Your task to perform on an android device: Go to Yahoo.com Image 0: 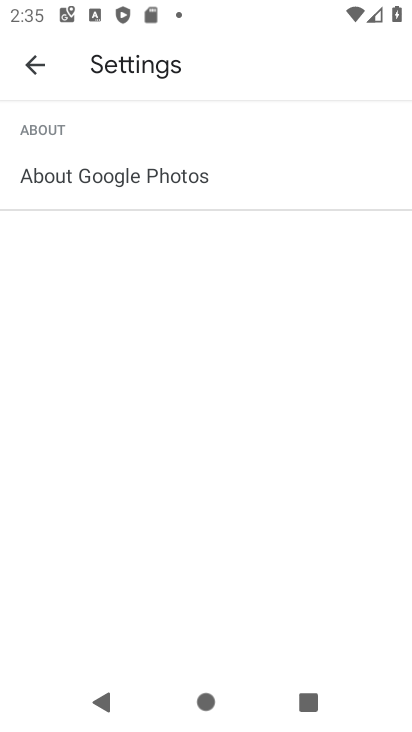
Step 0: press home button
Your task to perform on an android device: Go to Yahoo.com Image 1: 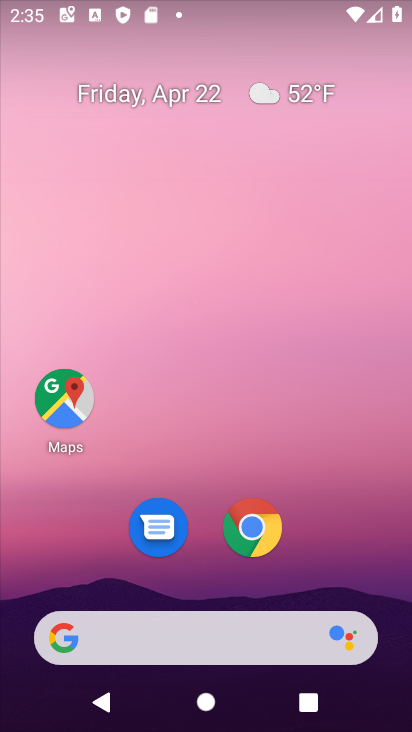
Step 1: click (258, 528)
Your task to perform on an android device: Go to Yahoo.com Image 2: 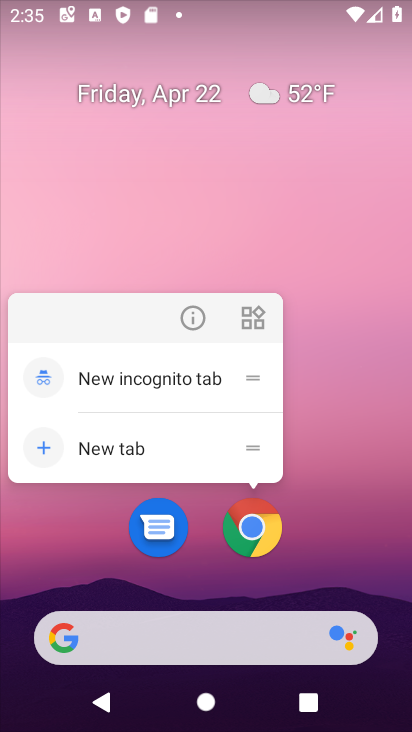
Step 2: click (258, 528)
Your task to perform on an android device: Go to Yahoo.com Image 3: 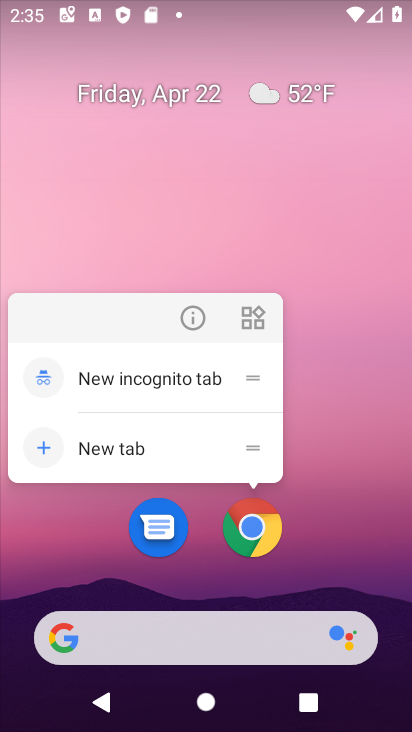
Step 3: click (258, 528)
Your task to perform on an android device: Go to Yahoo.com Image 4: 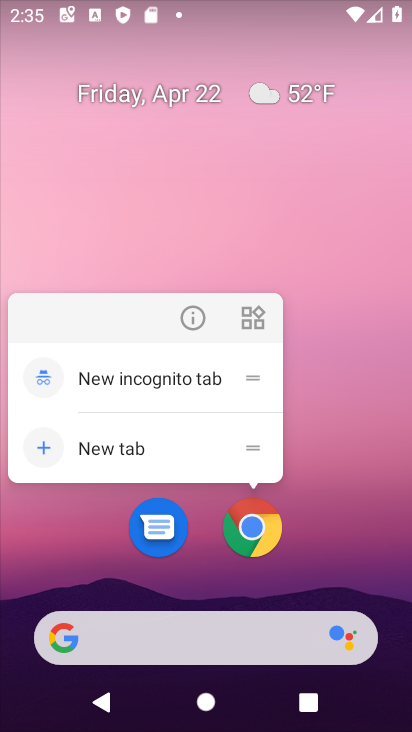
Step 4: click (258, 528)
Your task to perform on an android device: Go to Yahoo.com Image 5: 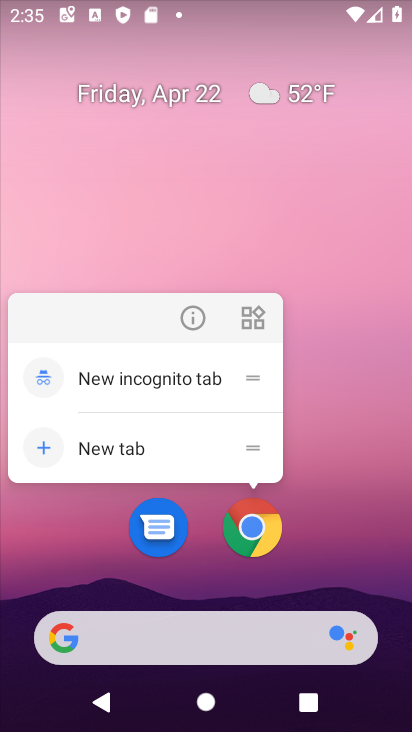
Step 5: click (258, 528)
Your task to perform on an android device: Go to Yahoo.com Image 6: 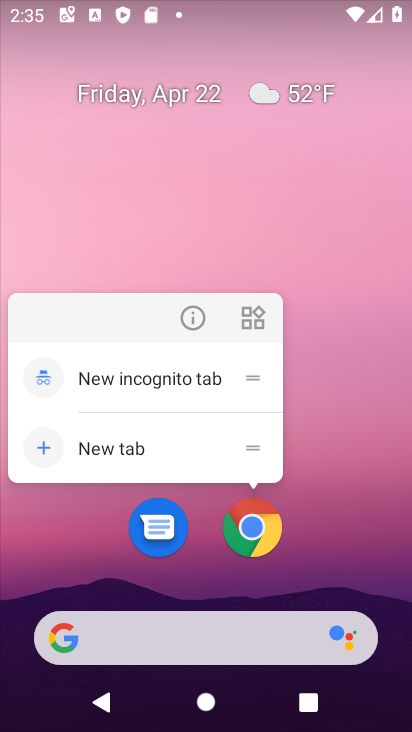
Step 6: click (258, 517)
Your task to perform on an android device: Go to Yahoo.com Image 7: 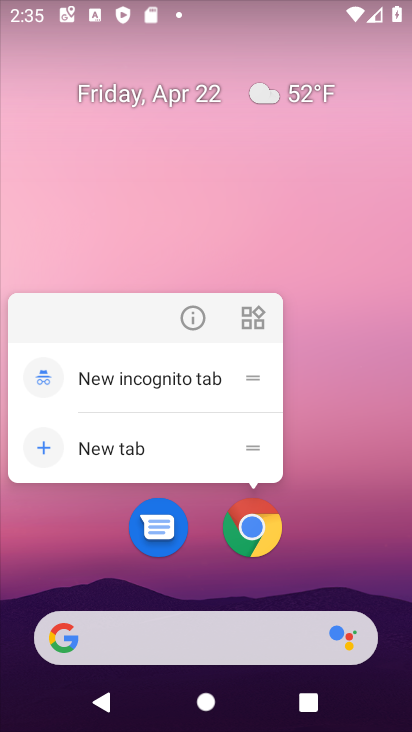
Step 7: click (259, 511)
Your task to perform on an android device: Go to Yahoo.com Image 8: 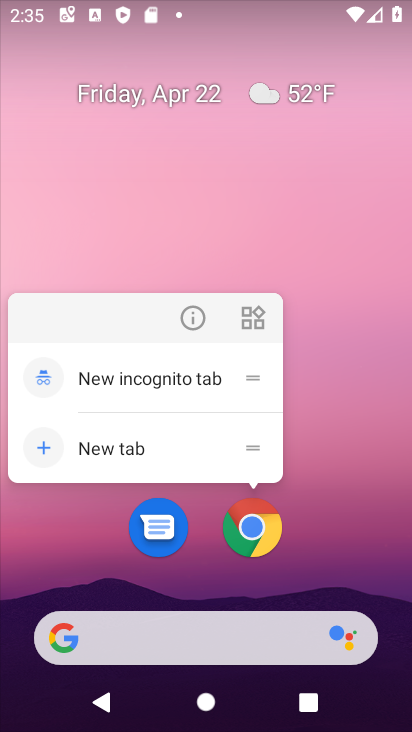
Step 8: click (260, 513)
Your task to perform on an android device: Go to Yahoo.com Image 9: 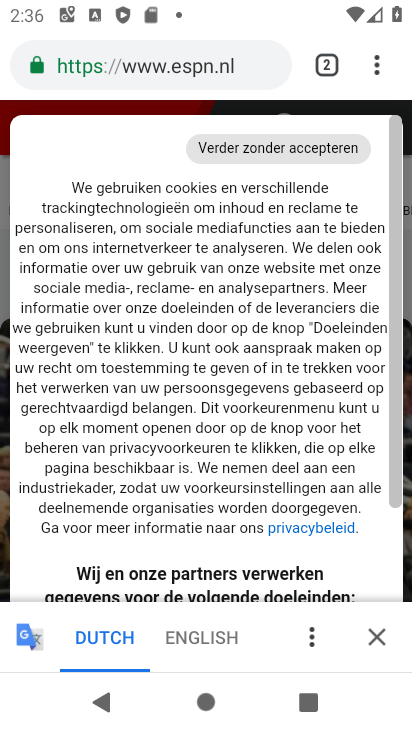
Step 9: click (210, 64)
Your task to perform on an android device: Go to Yahoo.com Image 10: 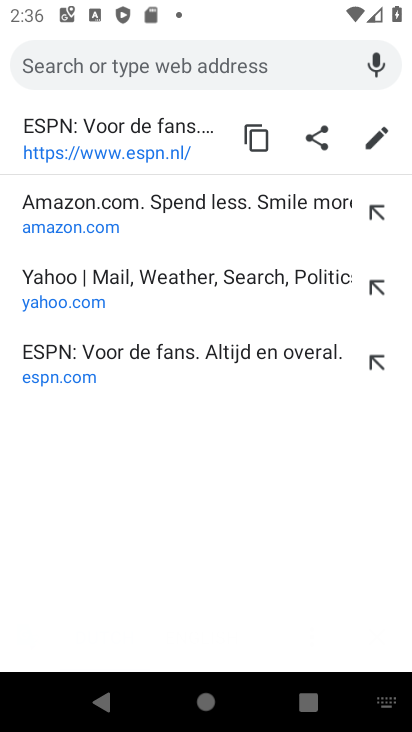
Step 10: type "yahoo.com"
Your task to perform on an android device: Go to Yahoo.com Image 11: 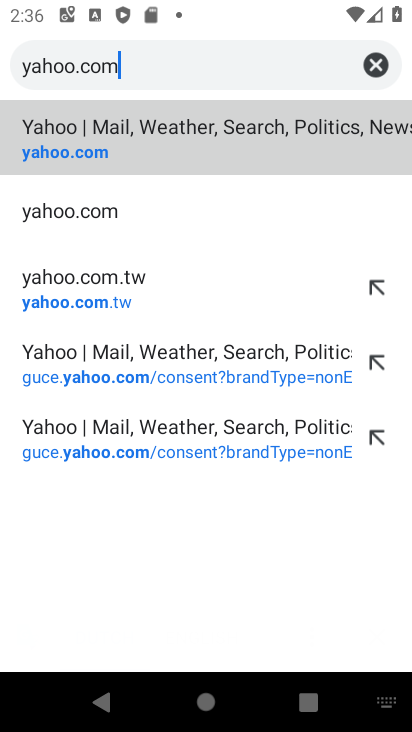
Step 11: click (83, 222)
Your task to perform on an android device: Go to Yahoo.com Image 12: 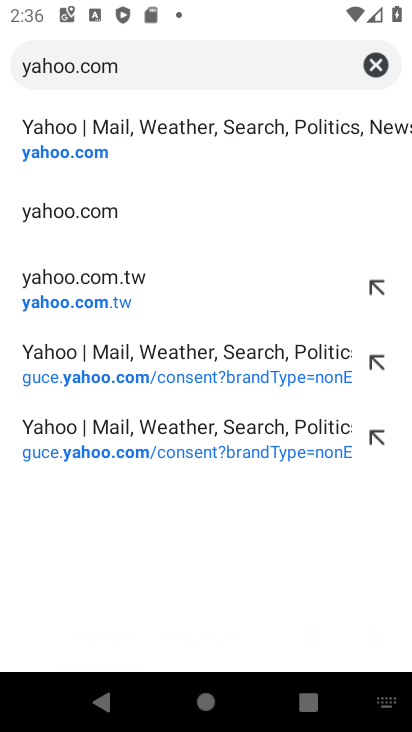
Step 12: click (82, 220)
Your task to perform on an android device: Go to Yahoo.com Image 13: 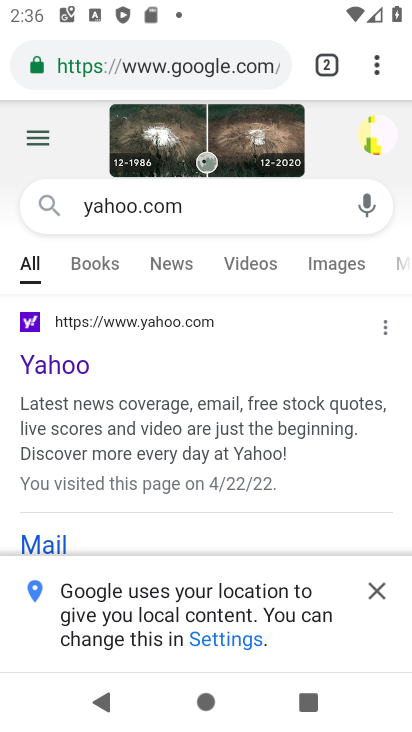
Step 13: click (30, 376)
Your task to perform on an android device: Go to Yahoo.com Image 14: 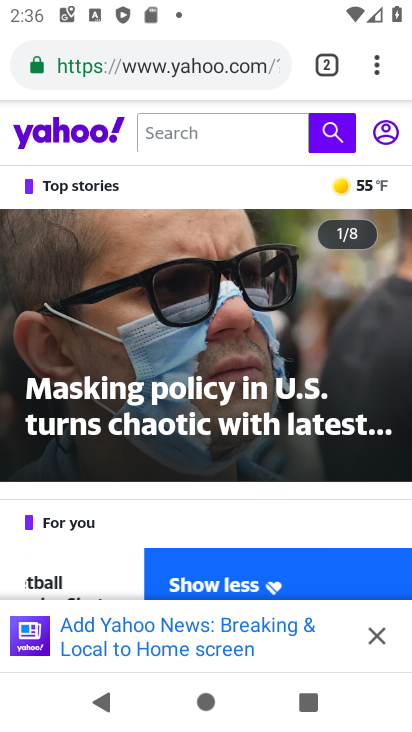
Step 14: task complete